Your task to perform on an android device: uninstall "Adobe Acrobat Reader" Image 0: 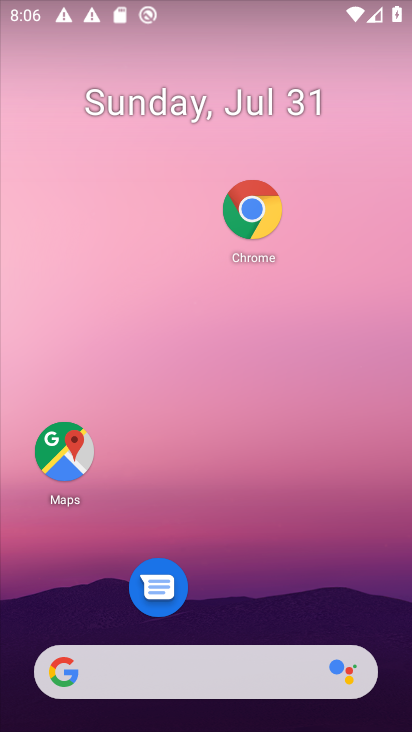
Step 0: drag from (226, 689) to (266, 433)
Your task to perform on an android device: uninstall "Adobe Acrobat Reader" Image 1: 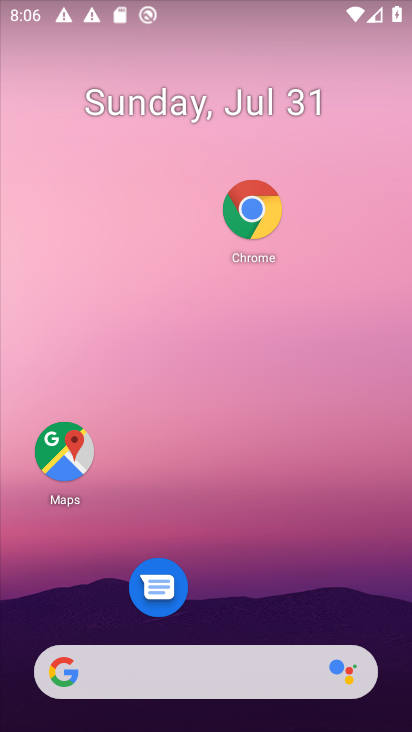
Step 1: drag from (253, 613) to (239, 405)
Your task to perform on an android device: uninstall "Adobe Acrobat Reader" Image 2: 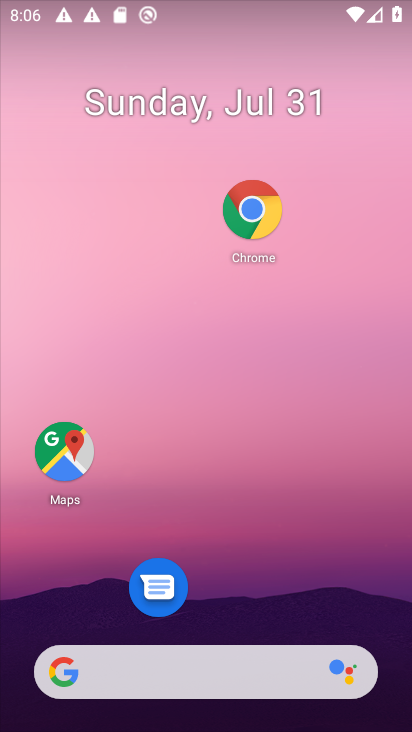
Step 2: drag from (251, 579) to (318, 41)
Your task to perform on an android device: uninstall "Adobe Acrobat Reader" Image 3: 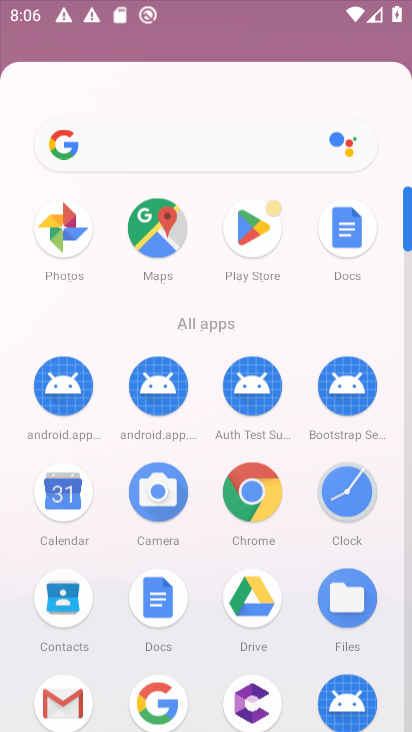
Step 3: drag from (157, 460) to (160, 111)
Your task to perform on an android device: uninstall "Adobe Acrobat Reader" Image 4: 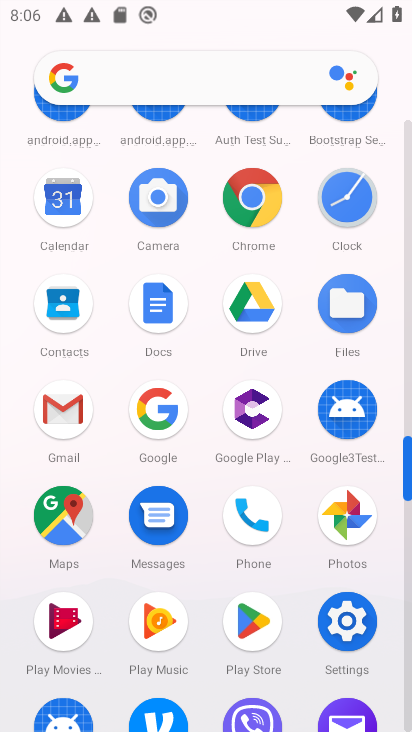
Step 4: drag from (256, 439) to (256, 625)
Your task to perform on an android device: uninstall "Adobe Acrobat Reader" Image 5: 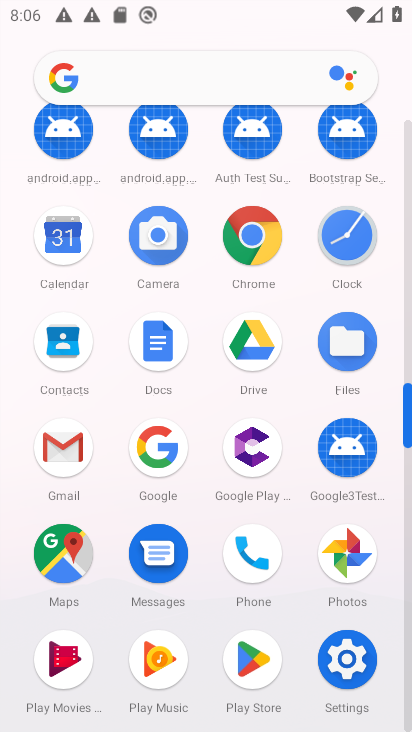
Step 5: drag from (332, 251) to (286, 635)
Your task to perform on an android device: uninstall "Adobe Acrobat Reader" Image 6: 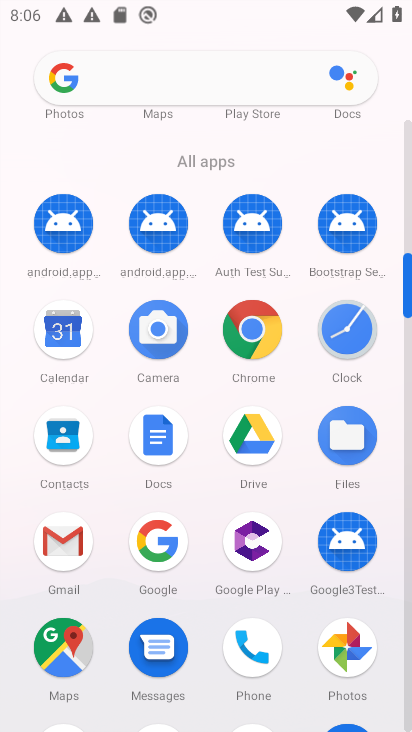
Step 6: drag from (206, 478) to (204, 643)
Your task to perform on an android device: uninstall "Adobe Acrobat Reader" Image 7: 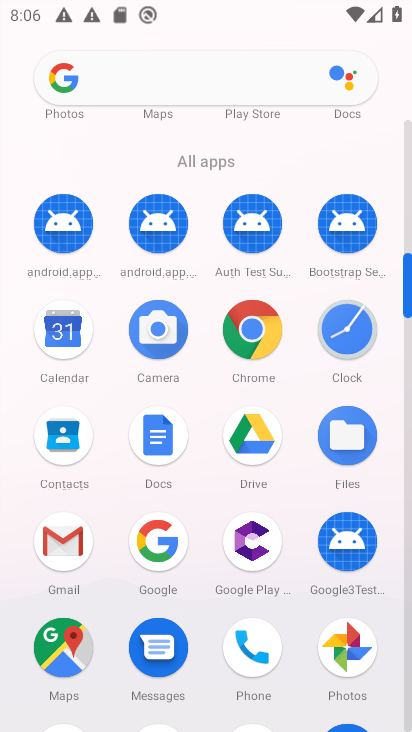
Step 7: drag from (260, 377) to (257, 614)
Your task to perform on an android device: uninstall "Adobe Acrobat Reader" Image 8: 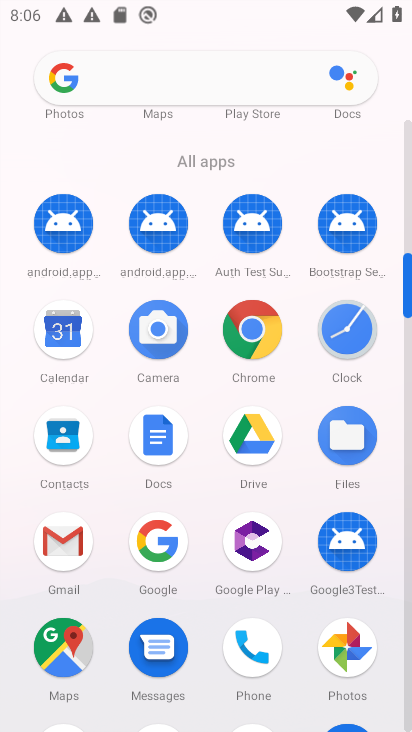
Step 8: drag from (306, 327) to (299, 600)
Your task to perform on an android device: uninstall "Adobe Acrobat Reader" Image 9: 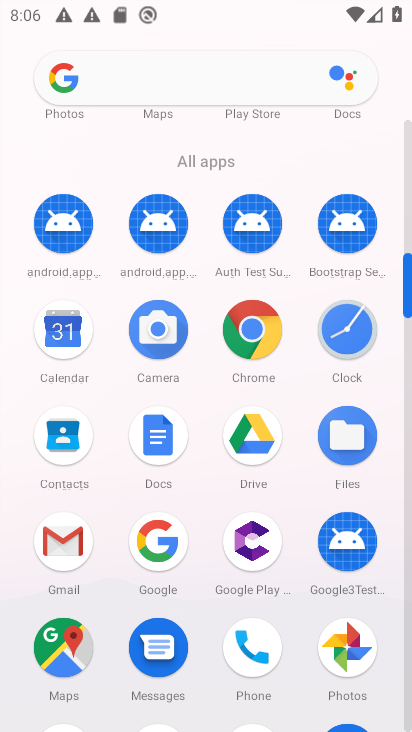
Step 9: drag from (352, 236) to (320, 514)
Your task to perform on an android device: uninstall "Adobe Acrobat Reader" Image 10: 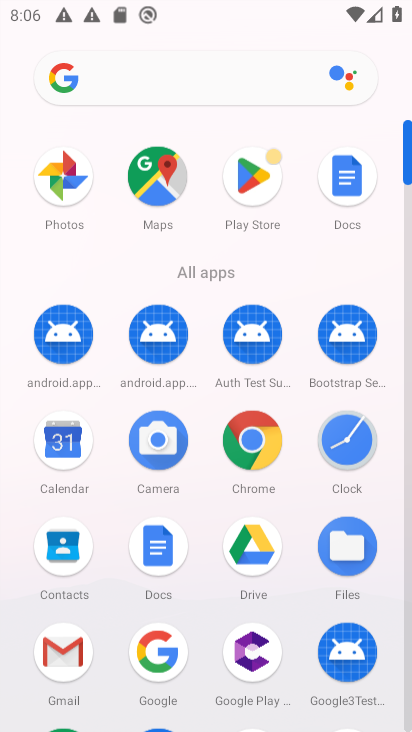
Step 10: drag from (280, 258) to (270, 600)
Your task to perform on an android device: uninstall "Adobe Acrobat Reader" Image 11: 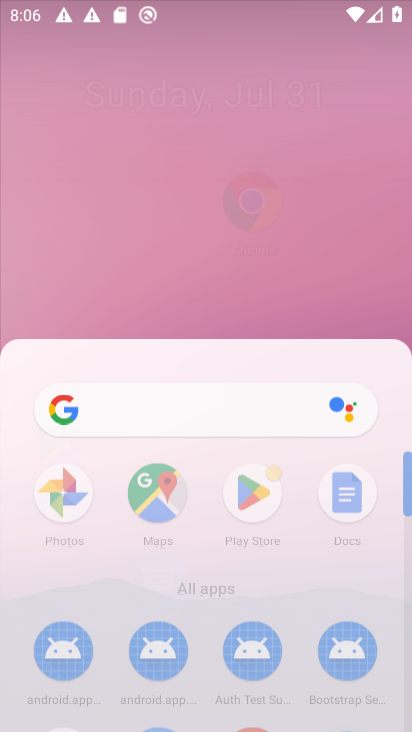
Step 11: drag from (269, 227) to (240, 508)
Your task to perform on an android device: uninstall "Adobe Acrobat Reader" Image 12: 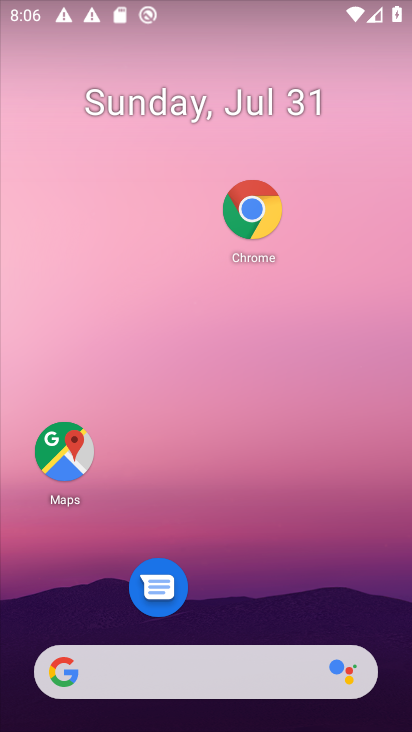
Step 12: drag from (216, 562) to (159, 168)
Your task to perform on an android device: uninstall "Adobe Acrobat Reader" Image 13: 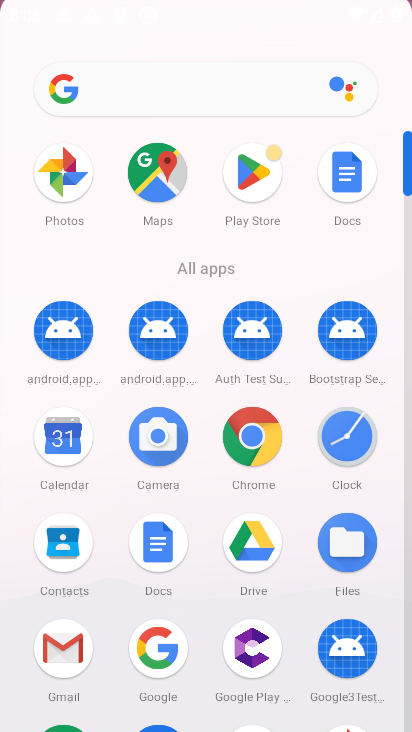
Step 13: drag from (178, 387) to (226, 38)
Your task to perform on an android device: uninstall "Adobe Acrobat Reader" Image 14: 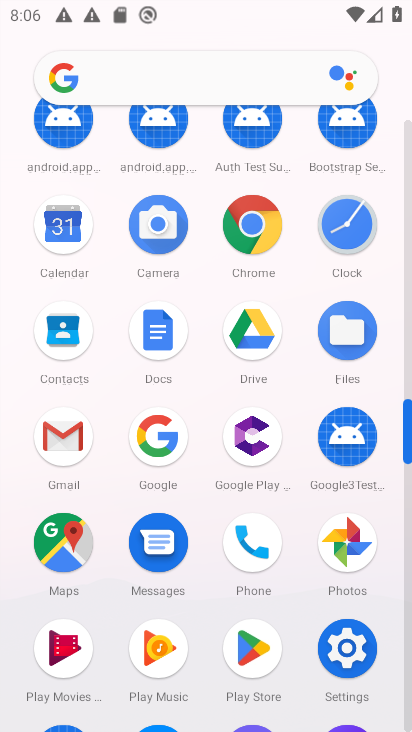
Step 14: drag from (277, 241) to (290, 526)
Your task to perform on an android device: uninstall "Adobe Acrobat Reader" Image 15: 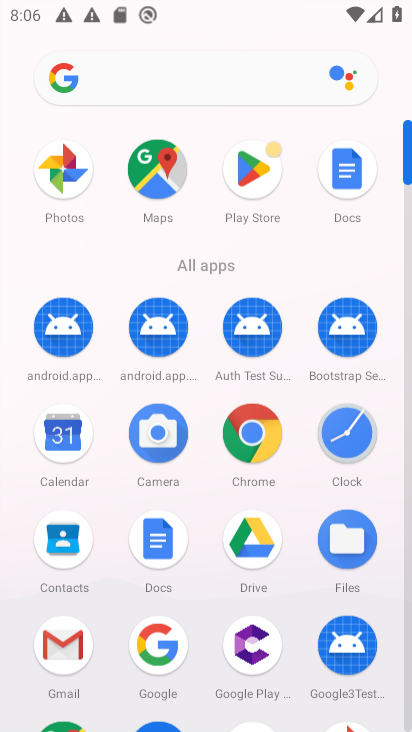
Step 15: drag from (329, 265) to (318, 514)
Your task to perform on an android device: uninstall "Adobe Acrobat Reader" Image 16: 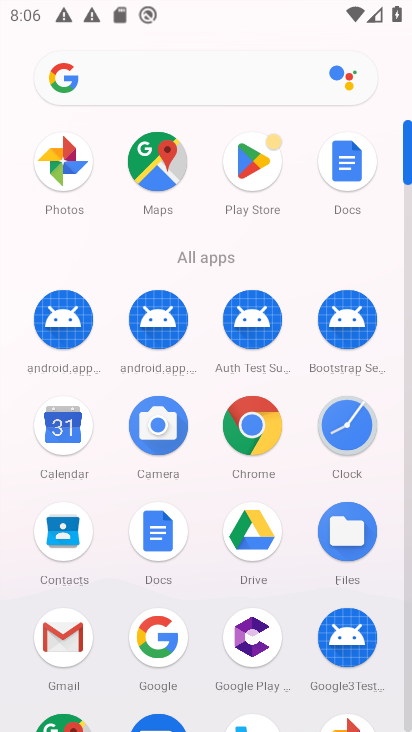
Step 16: click (252, 224)
Your task to perform on an android device: uninstall "Adobe Acrobat Reader" Image 17: 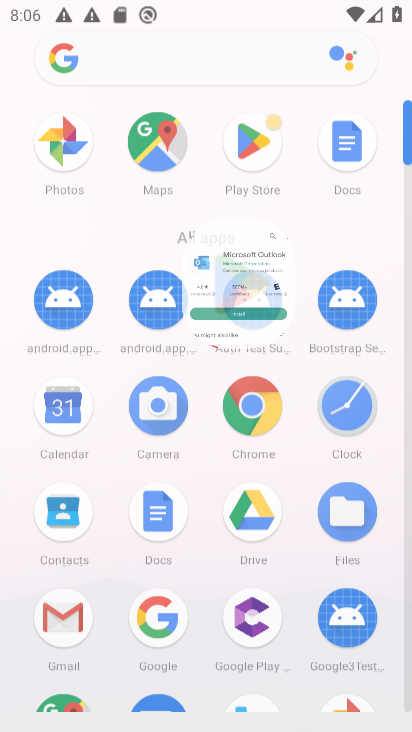
Step 17: click (240, 166)
Your task to perform on an android device: uninstall "Adobe Acrobat Reader" Image 18: 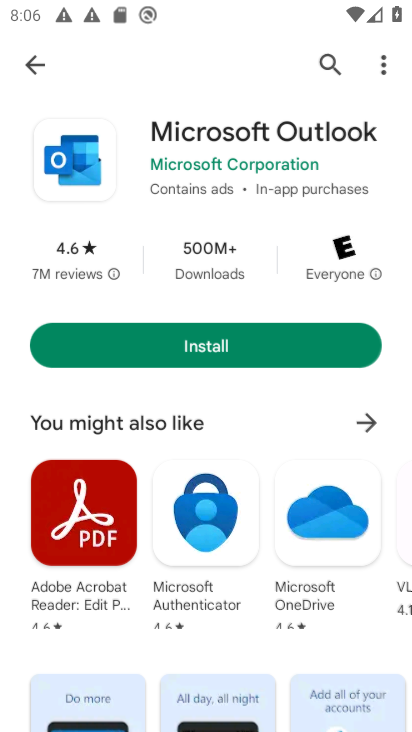
Step 18: click (240, 166)
Your task to perform on an android device: uninstall "Adobe Acrobat Reader" Image 19: 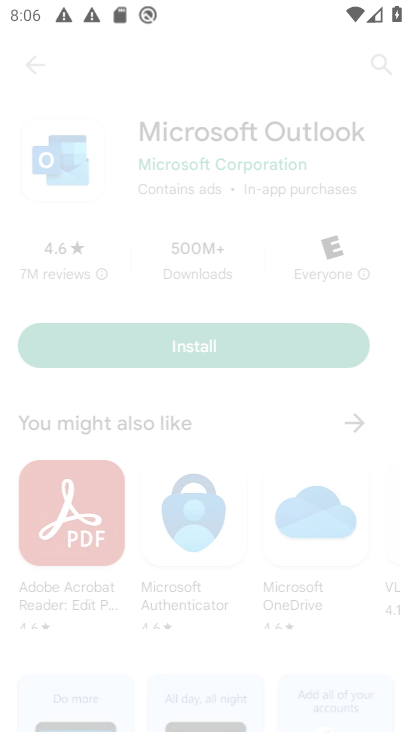
Step 19: click (240, 166)
Your task to perform on an android device: uninstall "Adobe Acrobat Reader" Image 20: 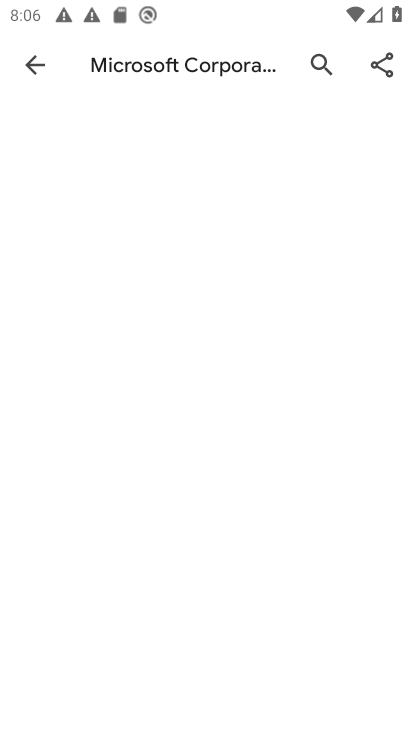
Step 20: click (250, 149)
Your task to perform on an android device: uninstall "Adobe Acrobat Reader" Image 21: 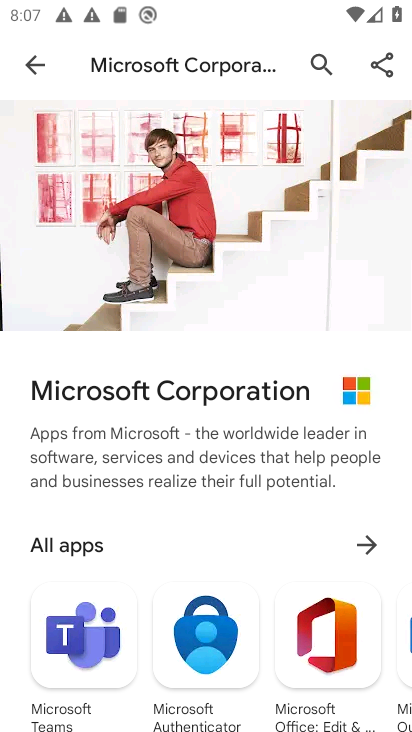
Step 21: click (26, 59)
Your task to perform on an android device: uninstall "Adobe Acrobat Reader" Image 22: 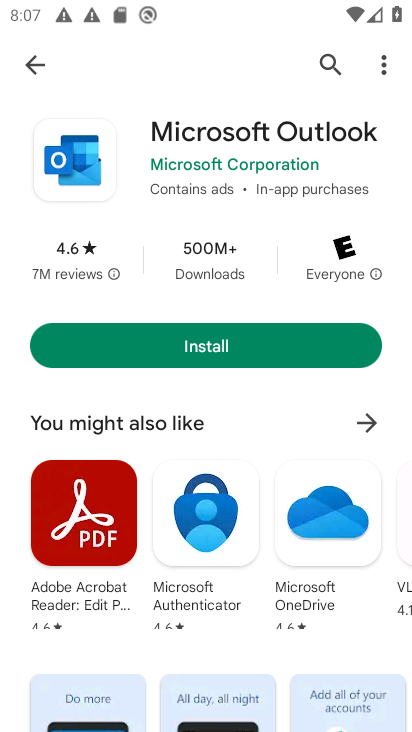
Step 22: click (27, 63)
Your task to perform on an android device: uninstall "Adobe Acrobat Reader" Image 23: 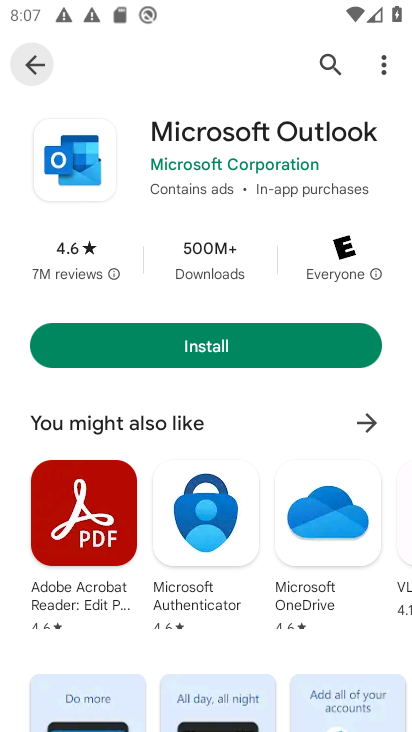
Step 23: click (26, 63)
Your task to perform on an android device: uninstall "Adobe Acrobat Reader" Image 24: 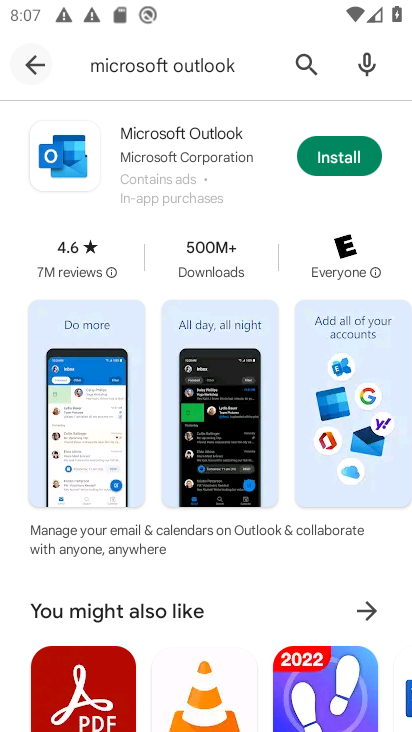
Step 24: click (26, 63)
Your task to perform on an android device: uninstall "Adobe Acrobat Reader" Image 25: 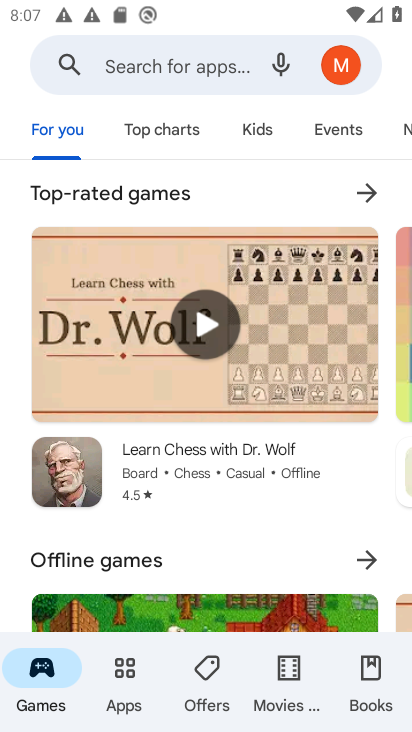
Step 25: click (120, 66)
Your task to perform on an android device: uninstall "Adobe Acrobat Reader" Image 26: 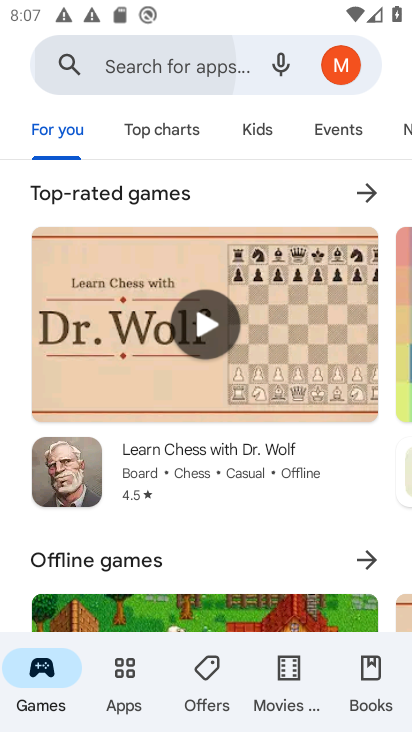
Step 26: click (120, 66)
Your task to perform on an android device: uninstall "Adobe Acrobat Reader" Image 27: 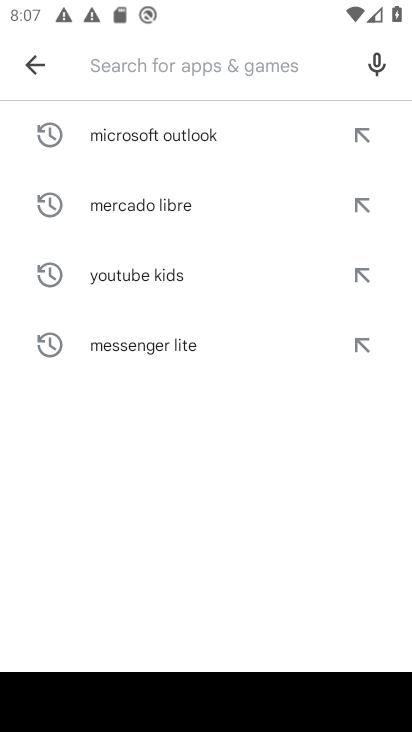
Step 27: type "adobe acrobat reader"
Your task to perform on an android device: uninstall "Adobe Acrobat Reader" Image 28: 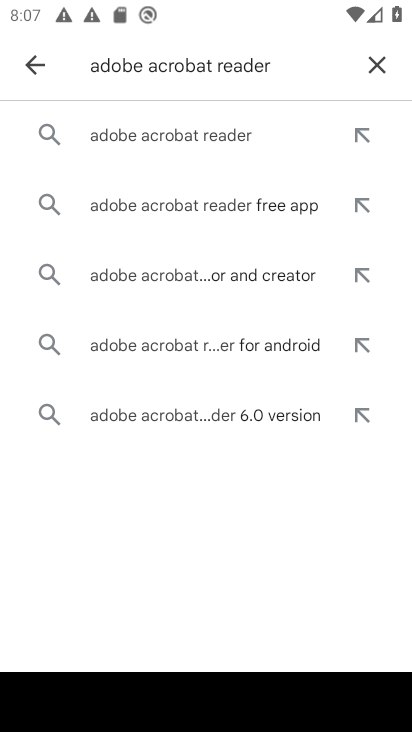
Step 28: click (193, 139)
Your task to perform on an android device: uninstall "Adobe Acrobat Reader" Image 29: 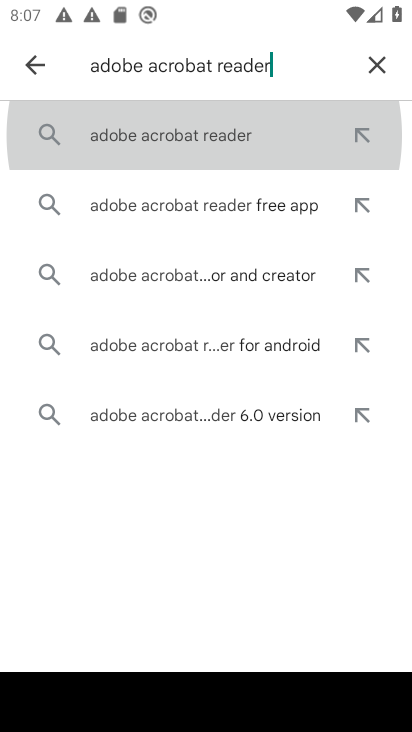
Step 29: click (194, 138)
Your task to perform on an android device: uninstall "Adobe Acrobat Reader" Image 30: 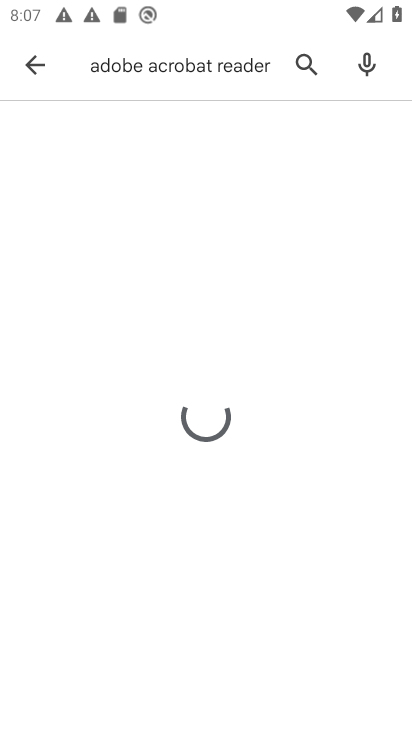
Step 30: click (197, 131)
Your task to perform on an android device: uninstall "Adobe Acrobat Reader" Image 31: 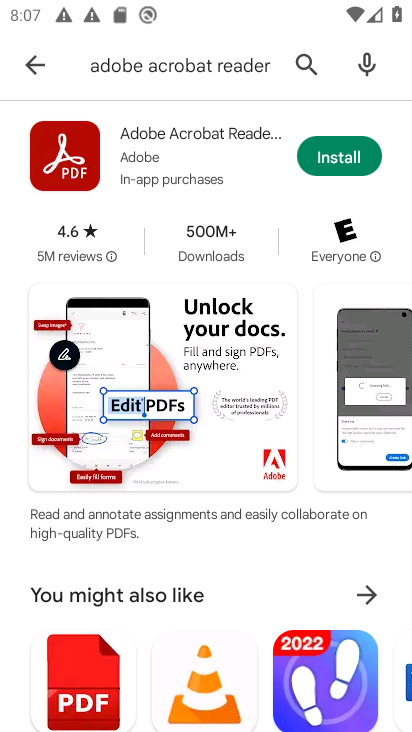
Step 31: click (325, 151)
Your task to perform on an android device: uninstall "Adobe Acrobat Reader" Image 32: 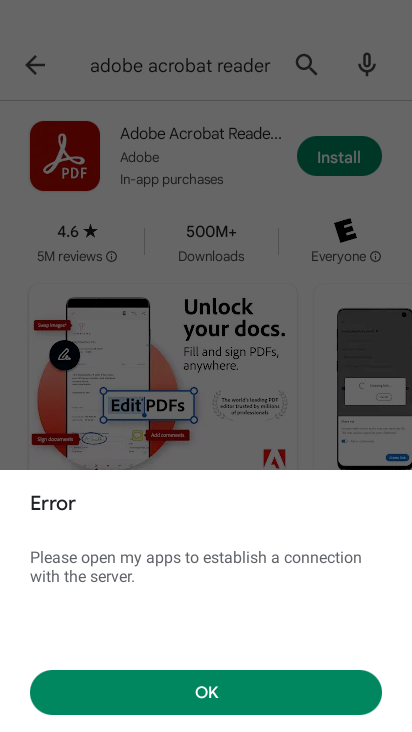
Step 32: task complete